Your task to perform on an android device: turn notification dots on Image 0: 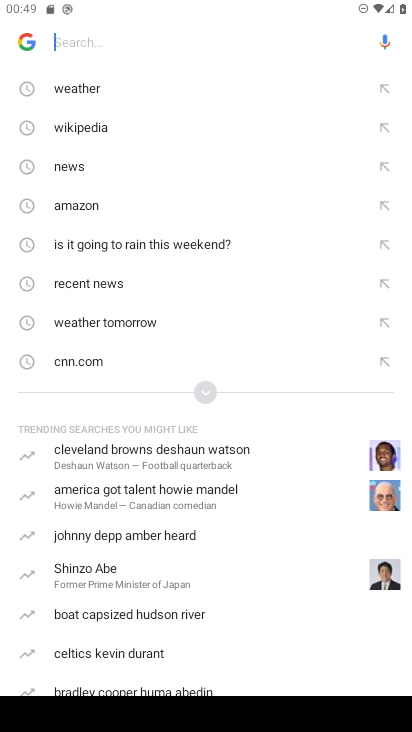
Step 0: press back button
Your task to perform on an android device: turn notification dots on Image 1: 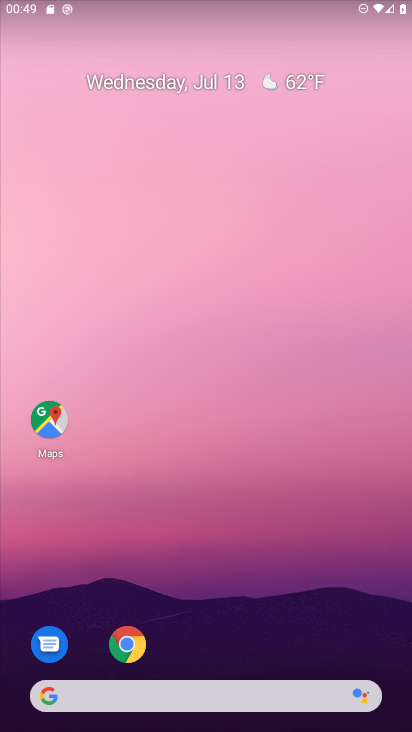
Step 1: drag from (288, 651) to (236, 47)
Your task to perform on an android device: turn notification dots on Image 2: 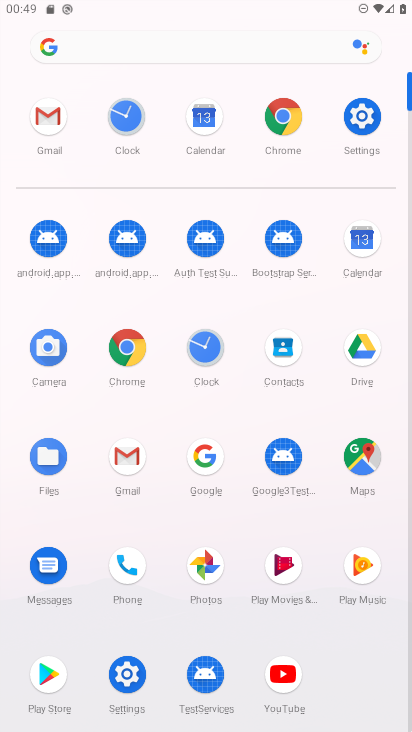
Step 2: click (354, 100)
Your task to perform on an android device: turn notification dots on Image 3: 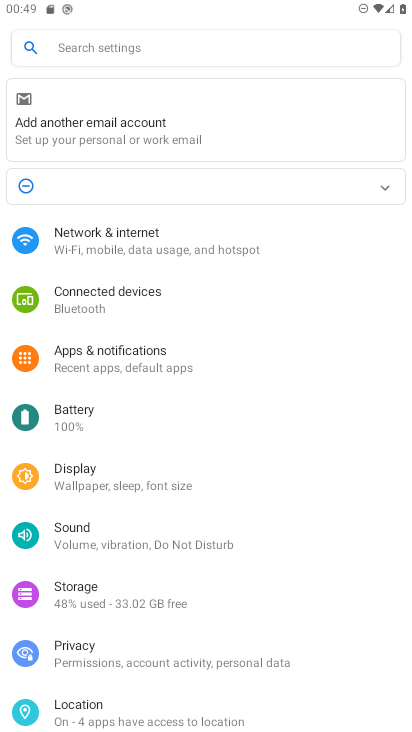
Step 3: click (102, 373)
Your task to perform on an android device: turn notification dots on Image 4: 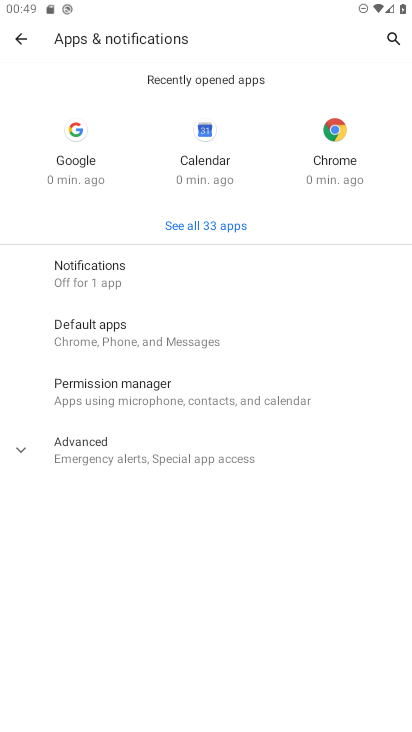
Step 4: click (133, 260)
Your task to perform on an android device: turn notification dots on Image 5: 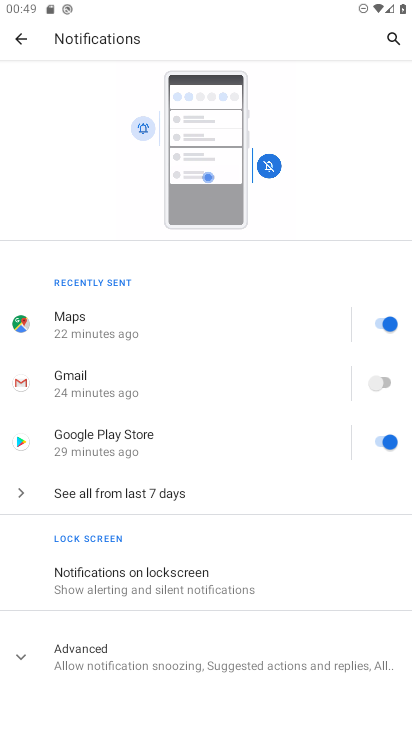
Step 5: click (234, 642)
Your task to perform on an android device: turn notification dots on Image 6: 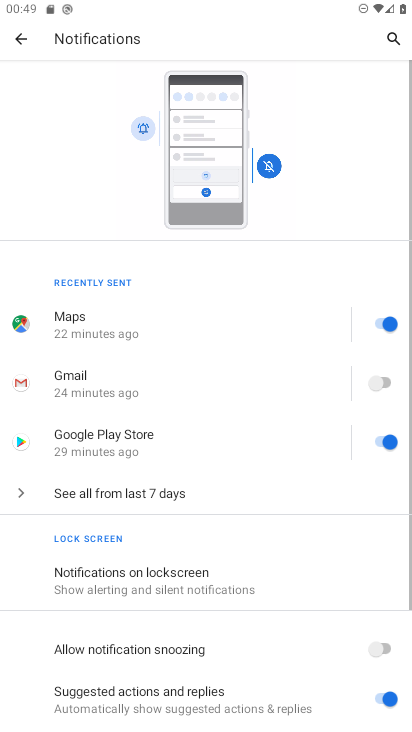
Step 6: task complete